Your task to perform on an android device: turn on showing notifications on the lock screen Image 0: 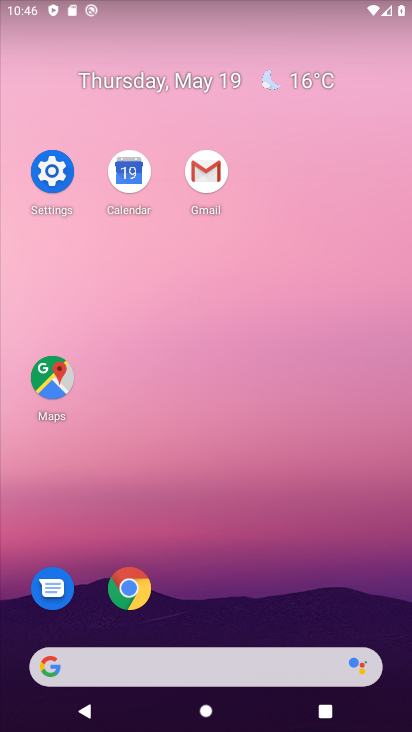
Step 0: click (68, 163)
Your task to perform on an android device: turn on showing notifications on the lock screen Image 1: 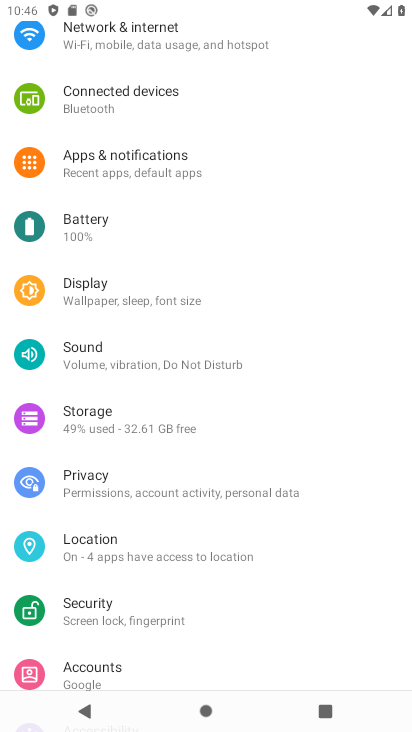
Step 1: click (209, 180)
Your task to perform on an android device: turn on showing notifications on the lock screen Image 2: 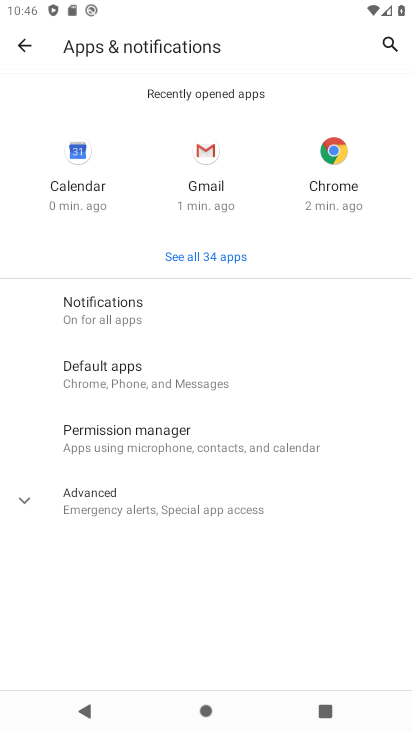
Step 2: click (200, 318)
Your task to perform on an android device: turn on showing notifications on the lock screen Image 3: 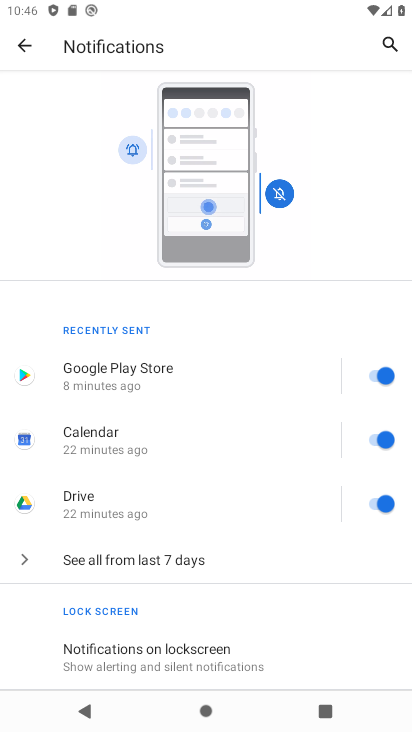
Step 3: click (248, 654)
Your task to perform on an android device: turn on showing notifications on the lock screen Image 4: 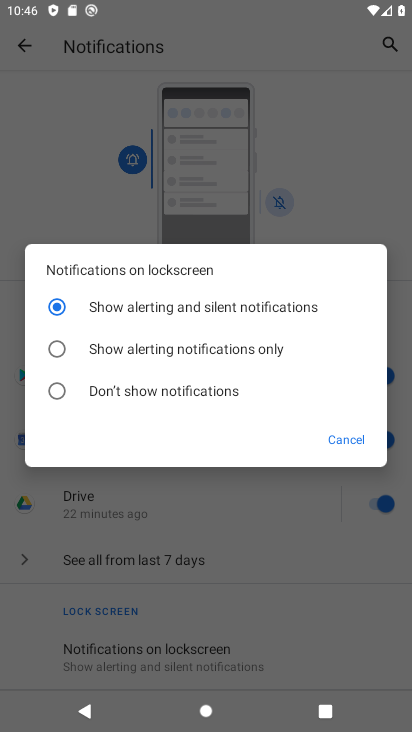
Step 4: task complete